Your task to perform on an android device: create a new album in the google photos Image 0: 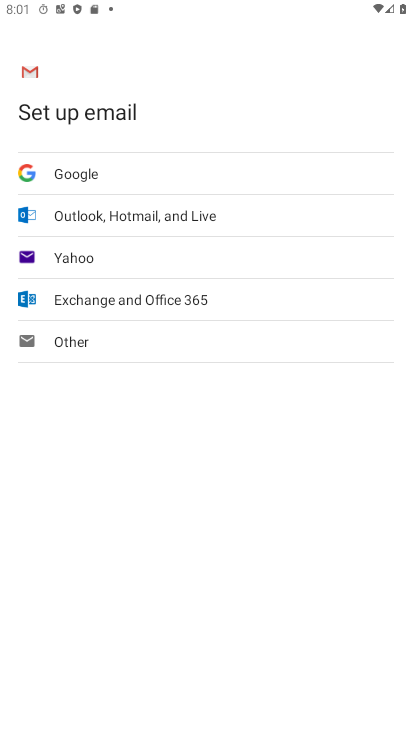
Step 0: press home button
Your task to perform on an android device: create a new album in the google photos Image 1: 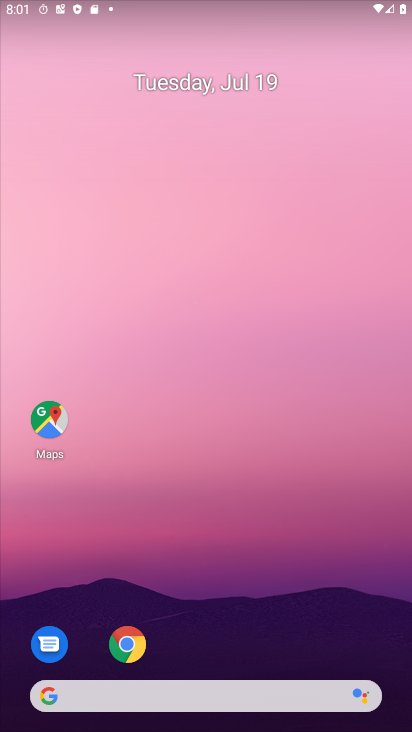
Step 1: drag from (13, 683) to (273, 40)
Your task to perform on an android device: create a new album in the google photos Image 2: 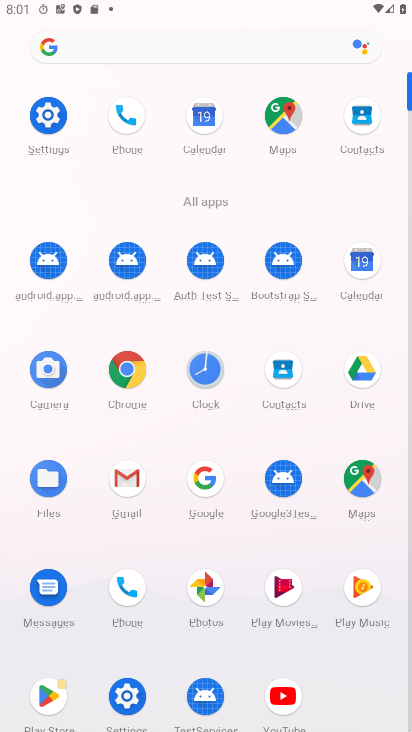
Step 2: click (220, 584)
Your task to perform on an android device: create a new album in the google photos Image 3: 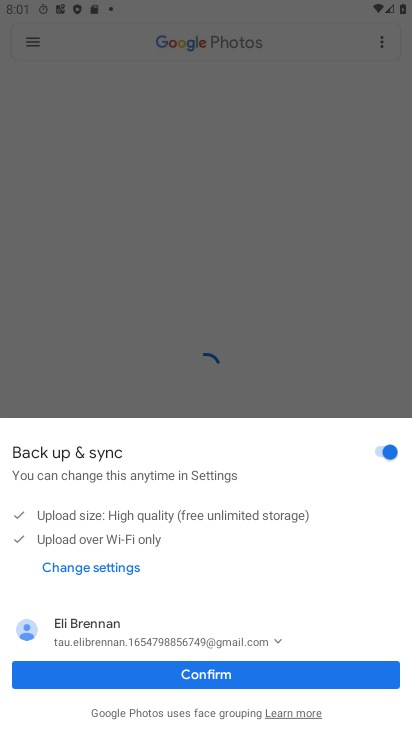
Step 3: click (193, 668)
Your task to perform on an android device: create a new album in the google photos Image 4: 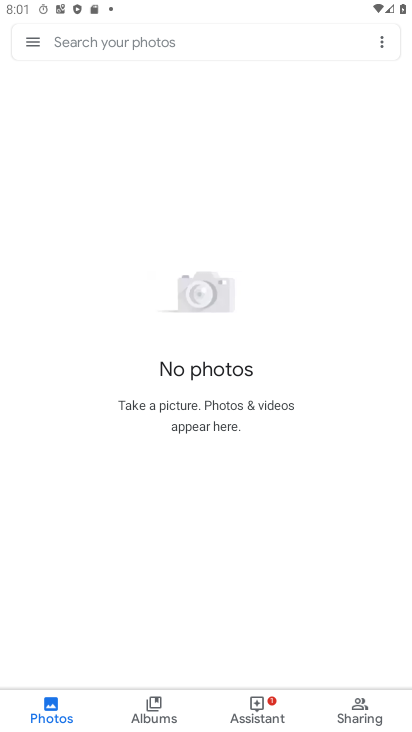
Step 4: click (144, 714)
Your task to perform on an android device: create a new album in the google photos Image 5: 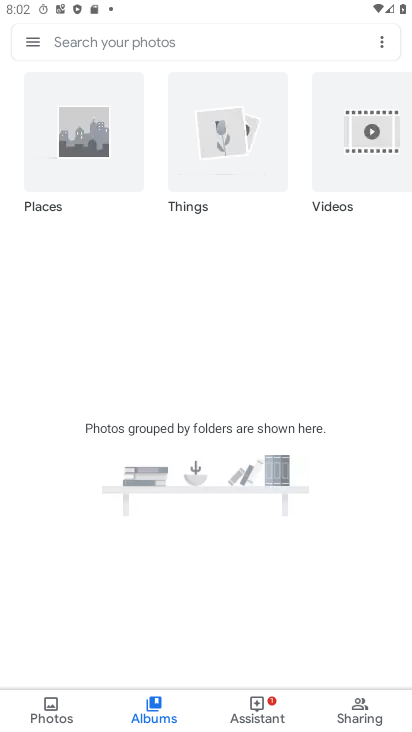
Step 5: task complete